Your task to perform on an android device: Do I have any events today? Image 0: 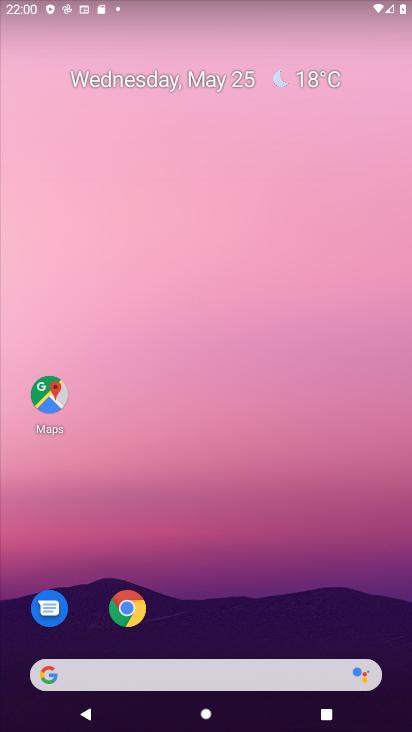
Step 0: drag from (241, 520) to (231, 5)
Your task to perform on an android device: Do I have any events today? Image 1: 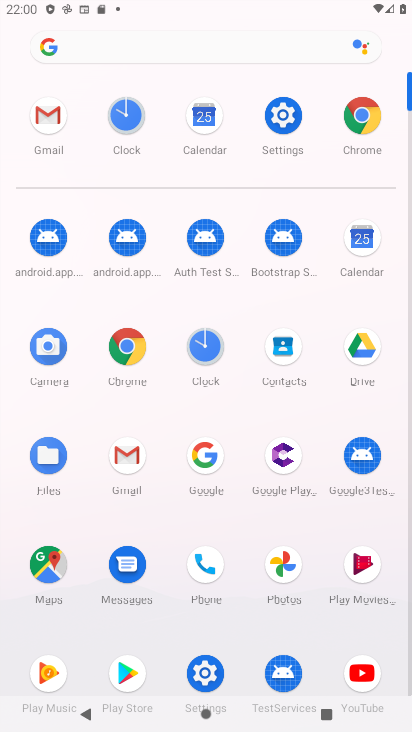
Step 1: click (348, 233)
Your task to perform on an android device: Do I have any events today? Image 2: 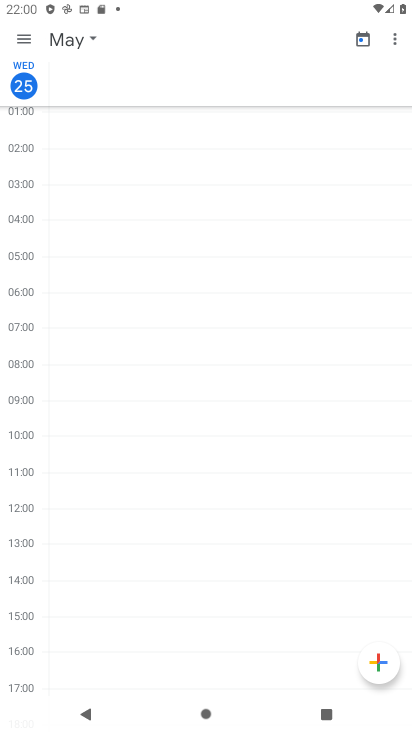
Step 2: task complete